Your task to perform on an android device: turn on improve location accuracy Image 0: 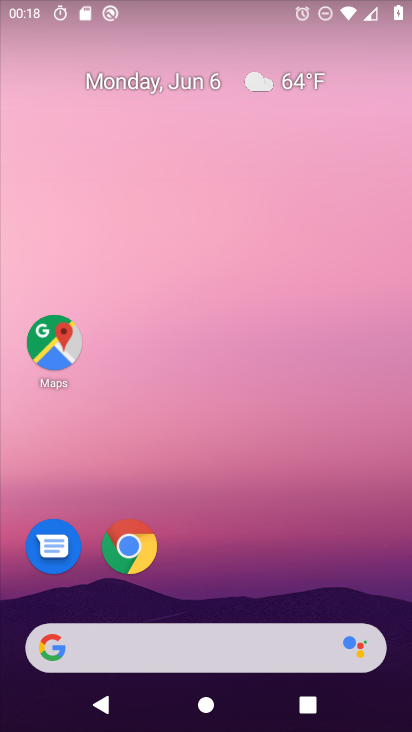
Step 0: drag from (203, 533) to (244, 60)
Your task to perform on an android device: turn on improve location accuracy Image 1: 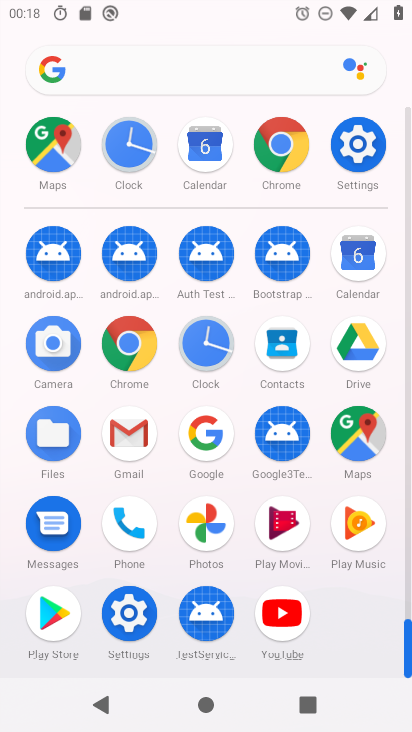
Step 1: drag from (203, 471) to (304, 85)
Your task to perform on an android device: turn on improve location accuracy Image 2: 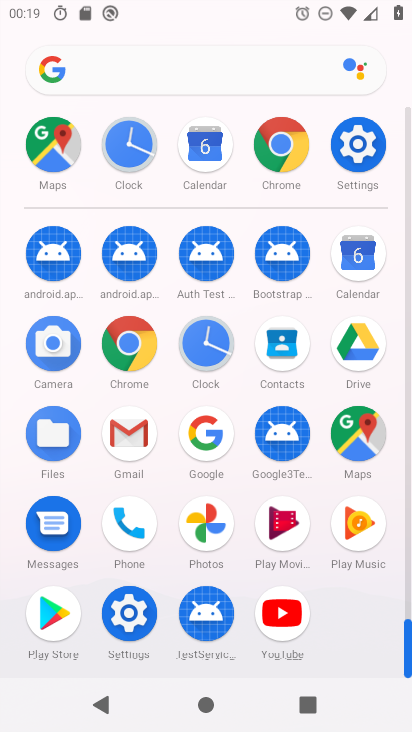
Step 2: click (339, 154)
Your task to perform on an android device: turn on improve location accuracy Image 3: 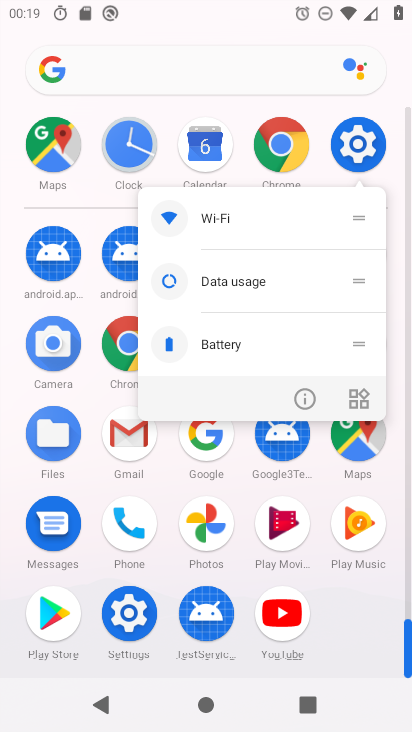
Step 3: click (300, 396)
Your task to perform on an android device: turn on improve location accuracy Image 4: 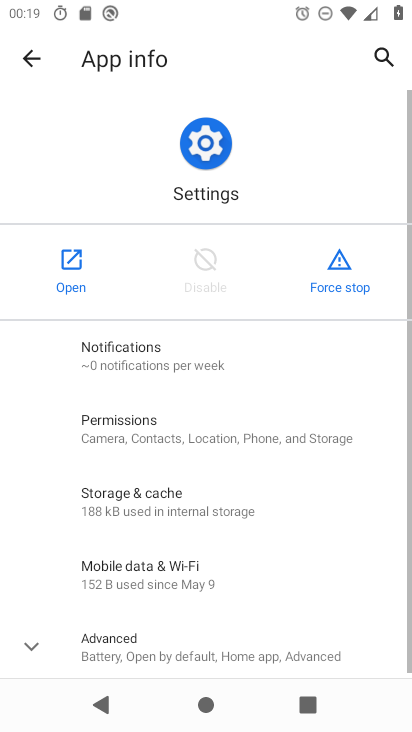
Step 4: click (78, 267)
Your task to perform on an android device: turn on improve location accuracy Image 5: 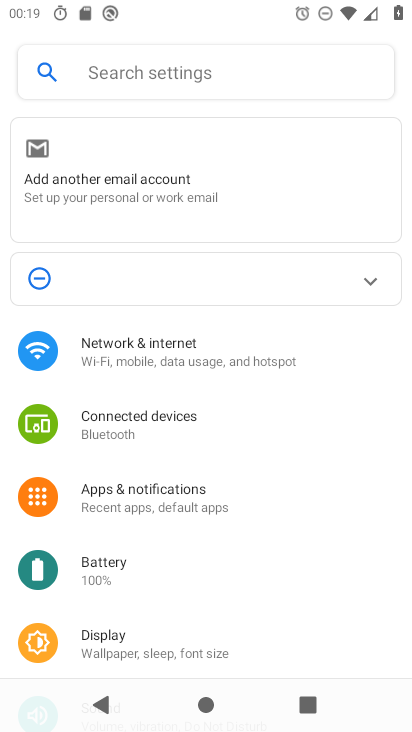
Step 5: drag from (219, 572) to (266, 307)
Your task to perform on an android device: turn on improve location accuracy Image 6: 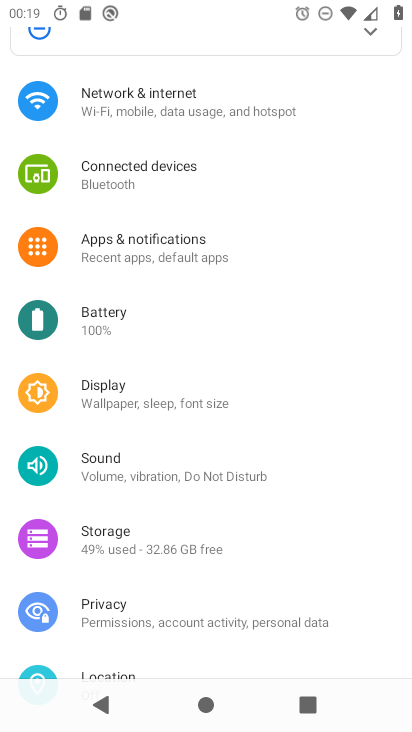
Step 6: drag from (201, 606) to (268, 254)
Your task to perform on an android device: turn on improve location accuracy Image 7: 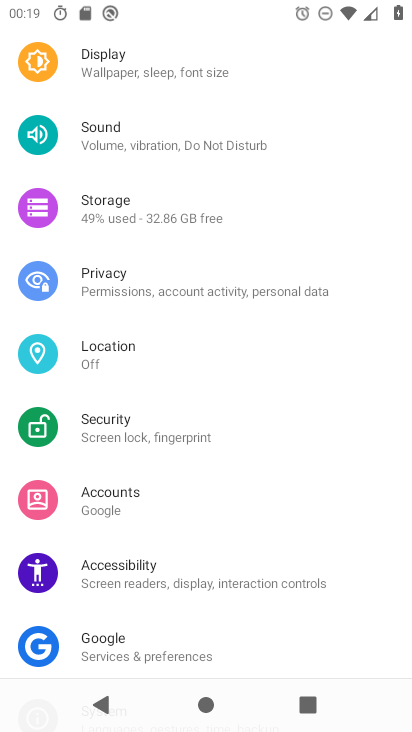
Step 7: click (131, 359)
Your task to perform on an android device: turn on improve location accuracy Image 8: 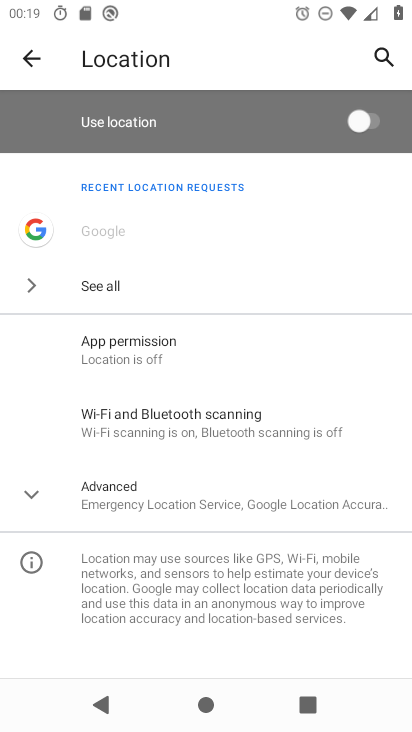
Step 8: drag from (211, 596) to (236, 251)
Your task to perform on an android device: turn on improve location accuracy Image 9: 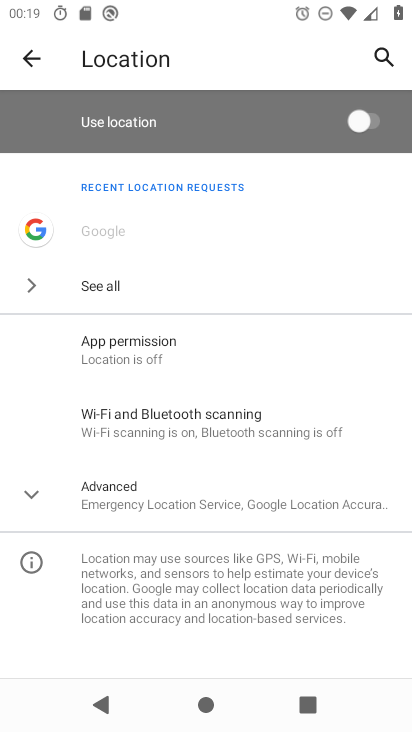
Step 9: click (193, 516)
Your task to perform on an android device: turn on improve location accuracy Image 10: 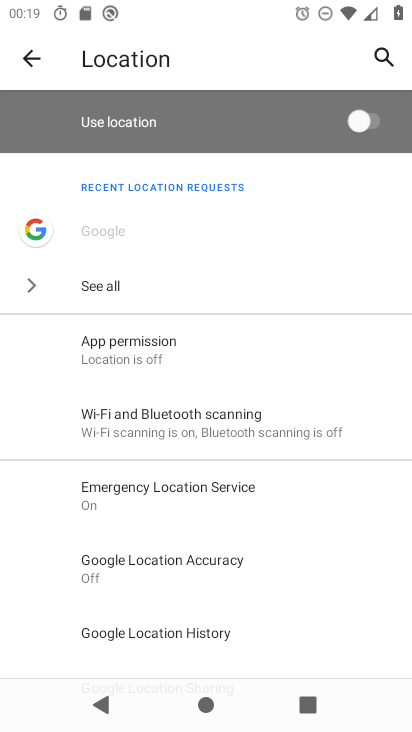
Step 10: drag from (214, 523) to (232, 146)
Your task to perform on an android device: turn on improve location accuracy Image 11: 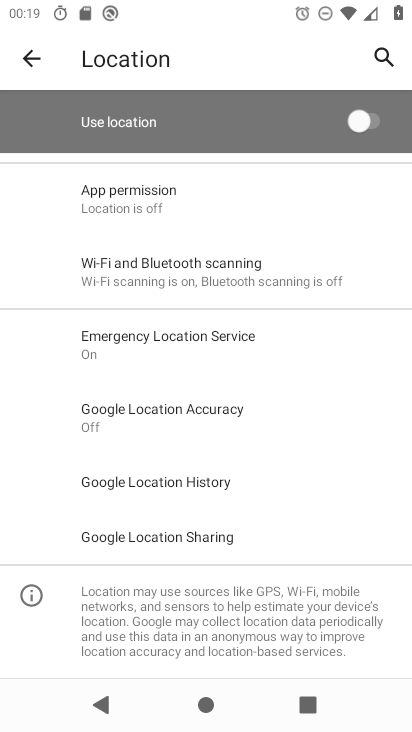
Step 11: click (221, 413)
Your task to perform on an android device: turn on improve location accuracy Image 12: 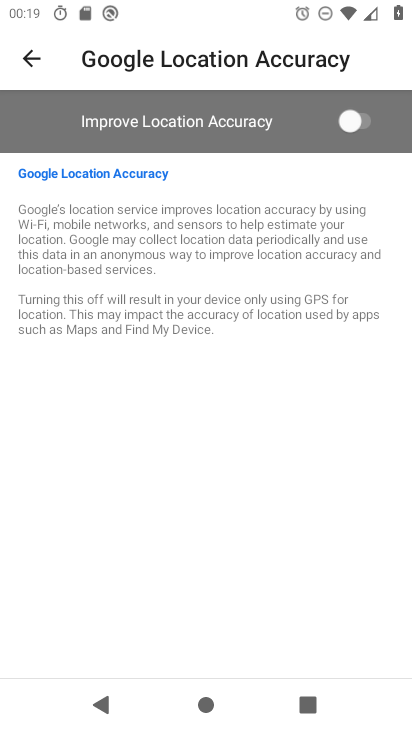
Step 12: click (341, 123)
Your task to perform on an android device: turn on improve location accuracy Image 13: 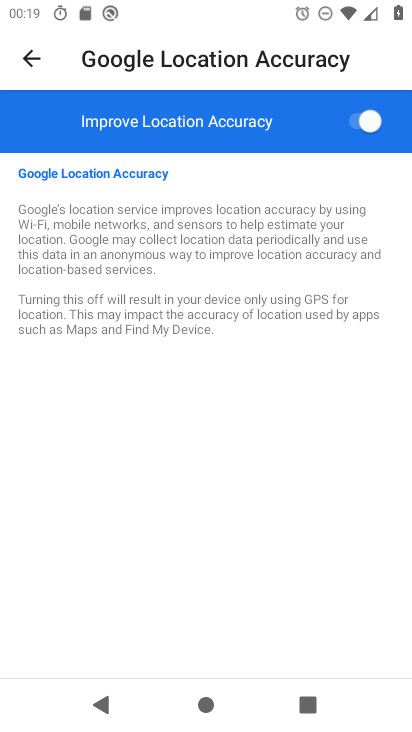
Step 13: task complete